Your task to perform on an android device: What time is it in London? Image 0: 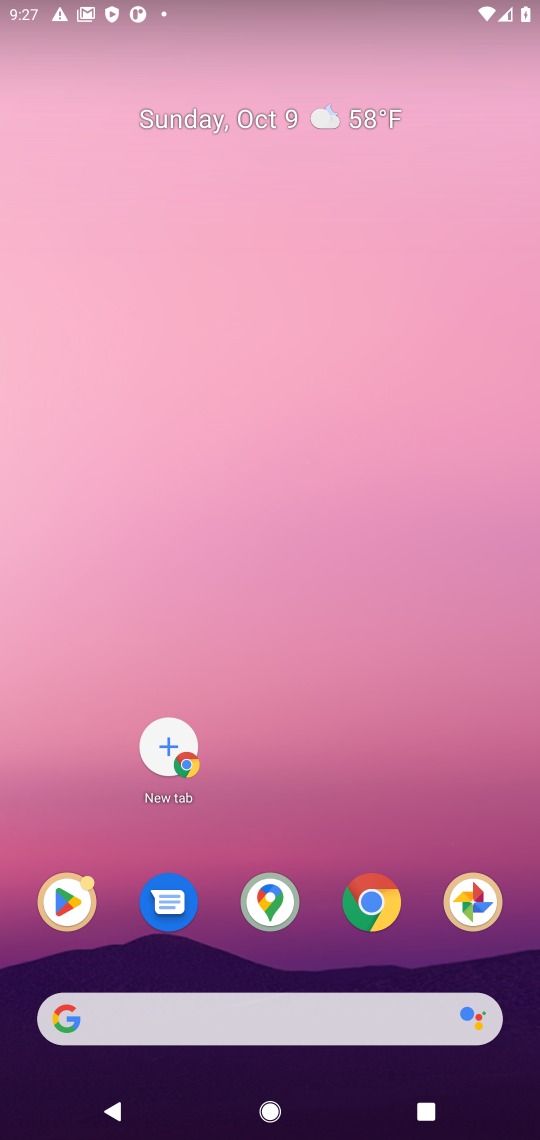
Step 0: click (375, 896)
Your task to perform on an android device: What time is it in London? Image 1: 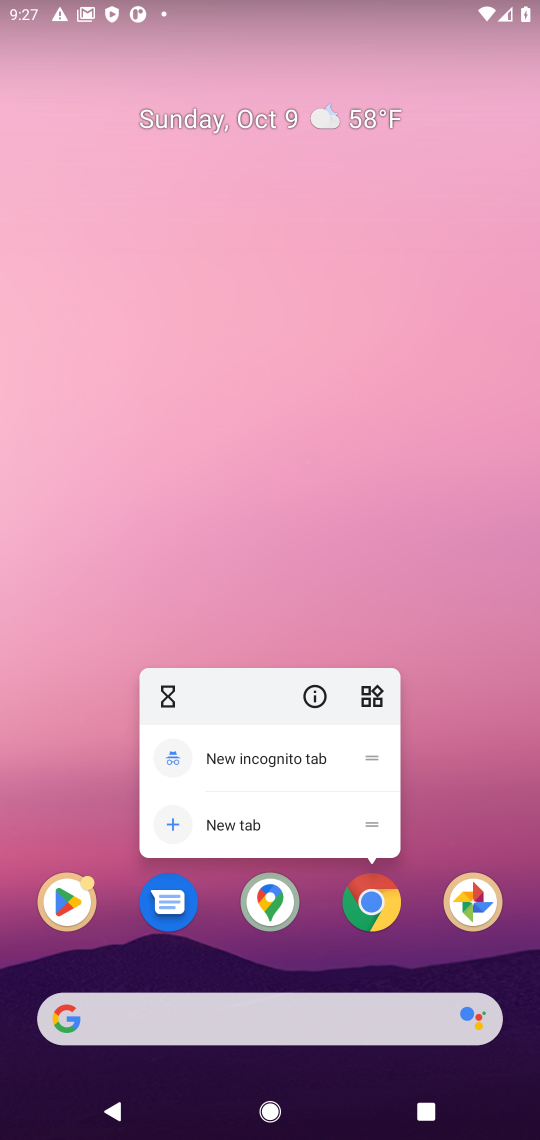
Step 1: click (372, 908)
Your task to perform on an android device: What time is it in London? Image 2: 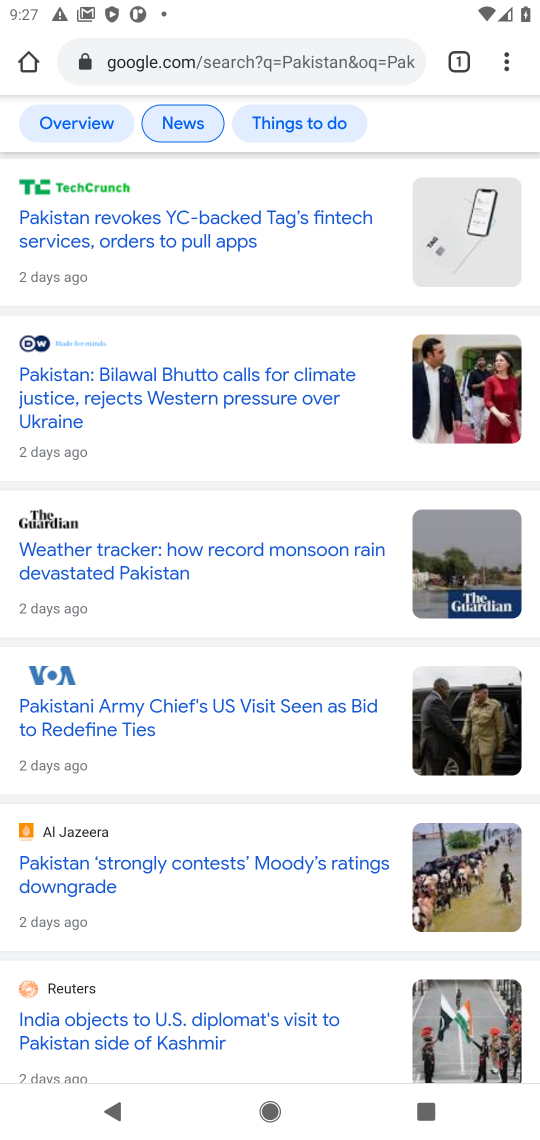
Step 2: click (151, 61)
Your task to perform on an android device: What time is it in London? Image 3: 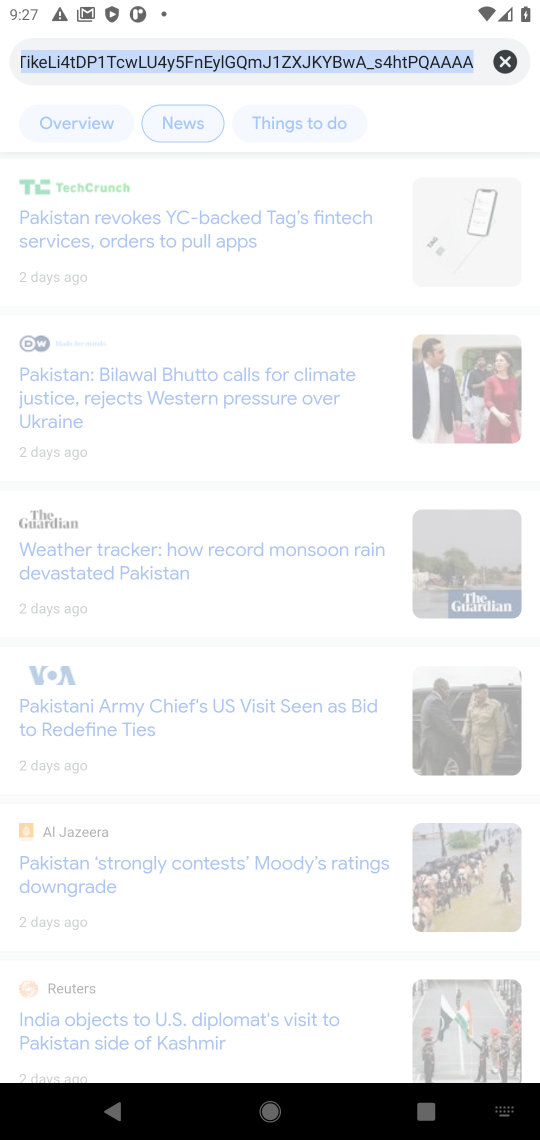
Step 3: type "time is it in London"
Your task to perform on an android device: What time is it in London? Image 4: 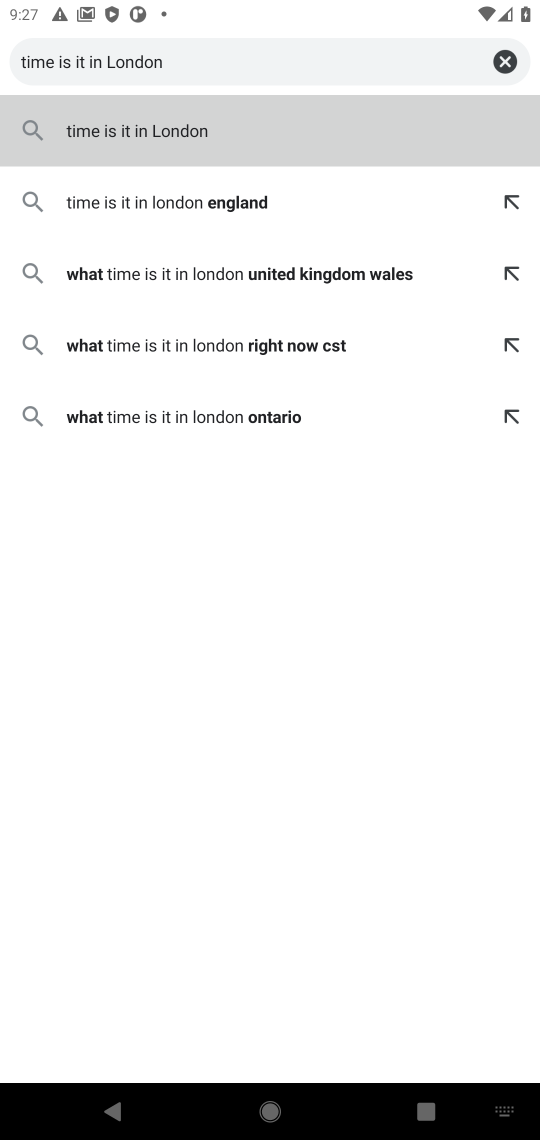
Step 4: type ""
Your task to perform on an android device: What time is it in London? Image 5: 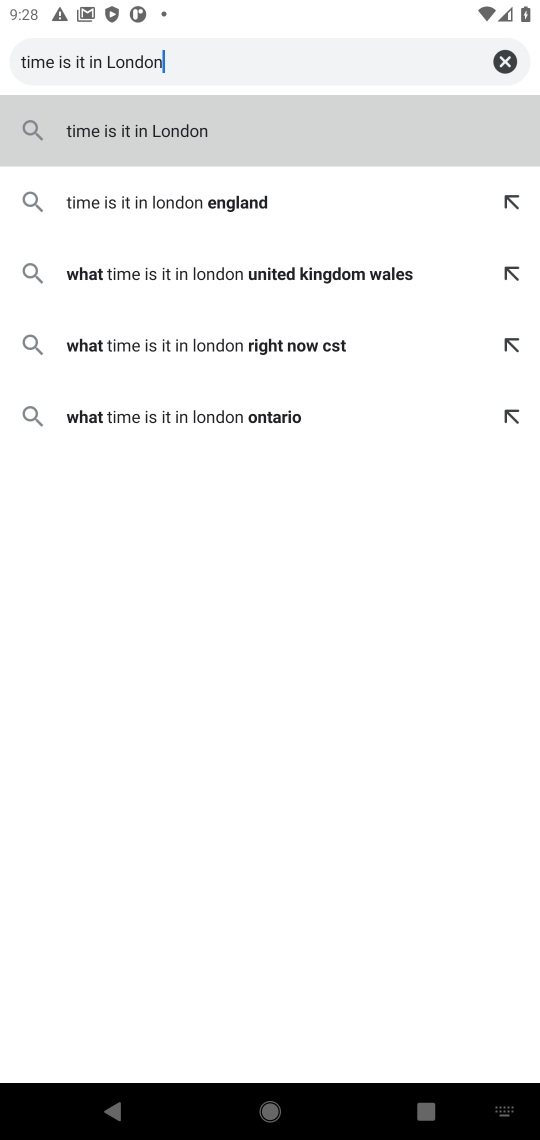
Step 5: click (180, 145)
Your task to perform on an android device: What time is it in London? Image 6: 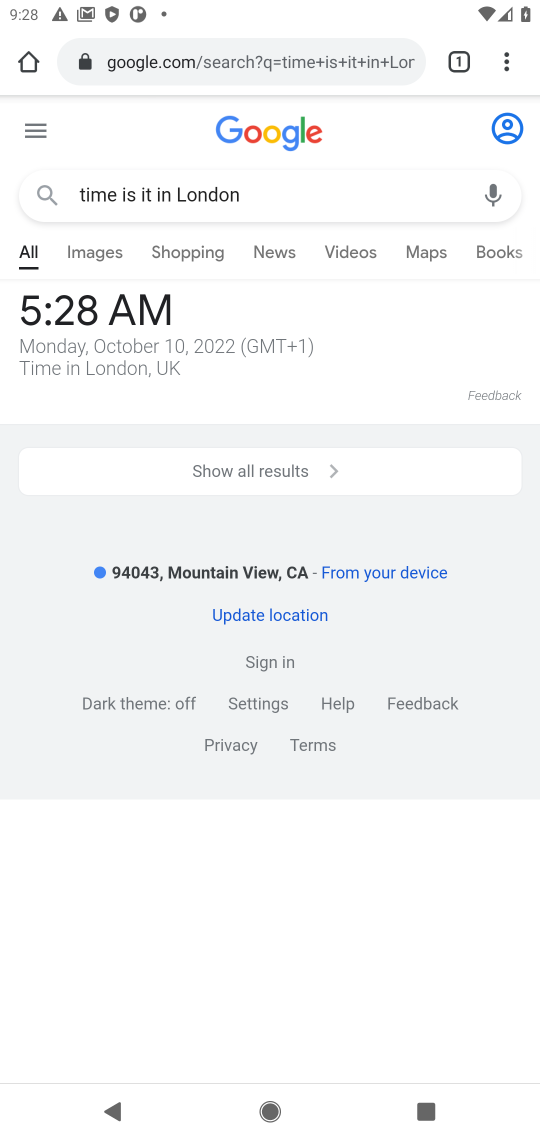
Step 6: task complete